Your task to perform on an android device: Open sound settings Image 0: 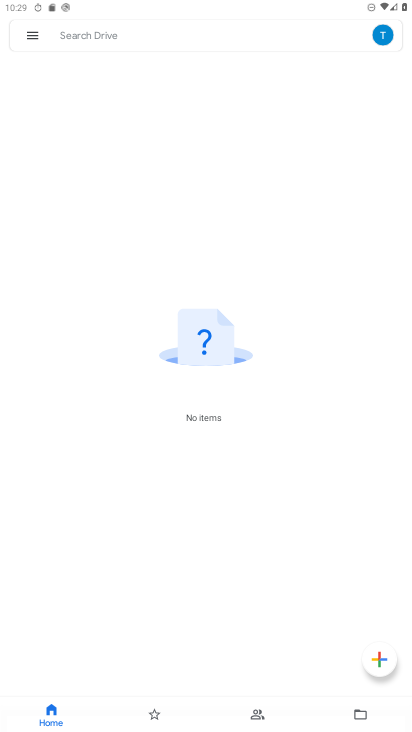
Step 0: press home button
Your task to perform on an android device: Open sound settings Image 1: 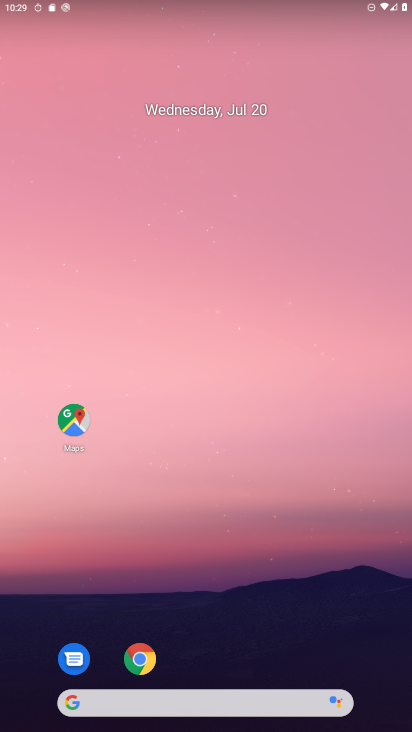
Step 1: drag from (275, 621) to (68, 195)
Your task to perform on an android device: Open sound settings Image 2: 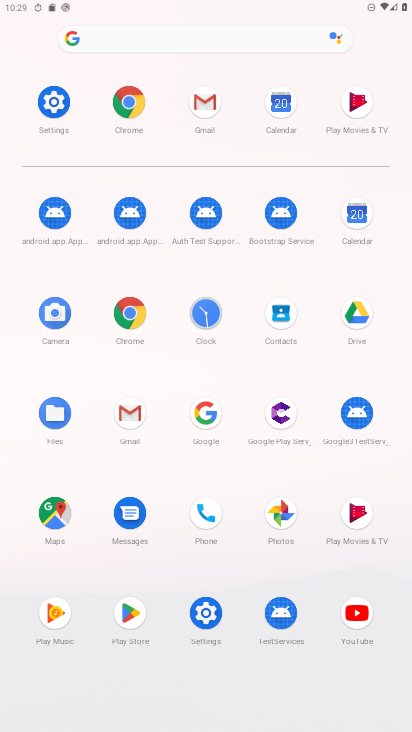
Step 2: click (37, 109)
Your task to perform on an android device: Open sound settings Image 3: 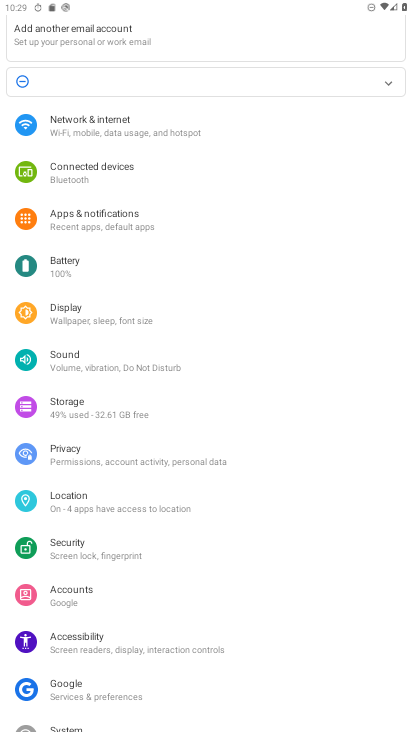
Step 3: click (92, 354)
Your task to perform on an android device: Open sound settings Image 4: 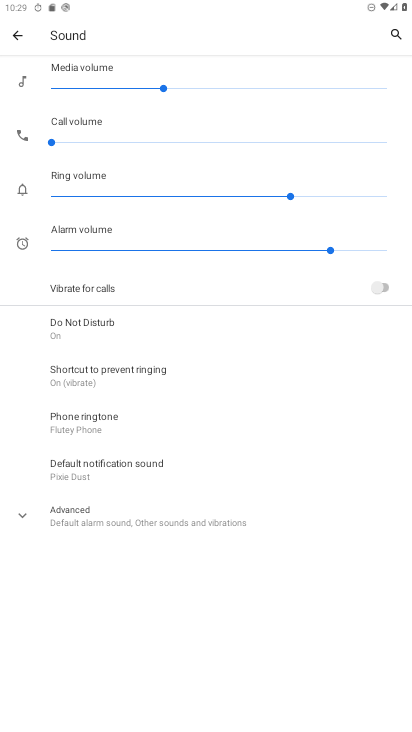
Step 4: task complete